Your task to perform on an android device: turn off airplane mode Image 0: 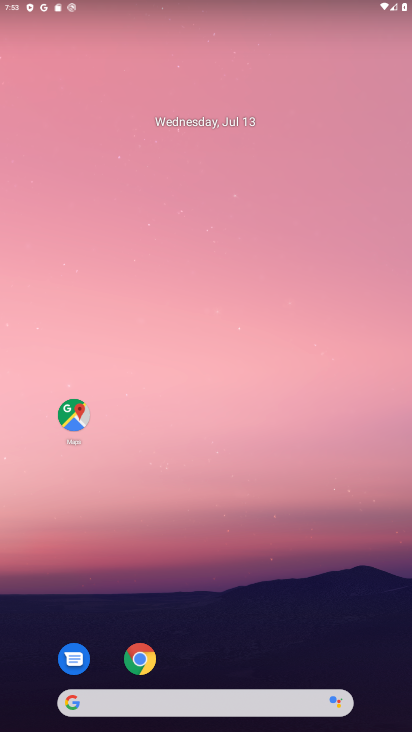
Step 0: drag from (279, 659) to (266, 72)
Your task to perform on an android device: turn off airplane mode Image 1: 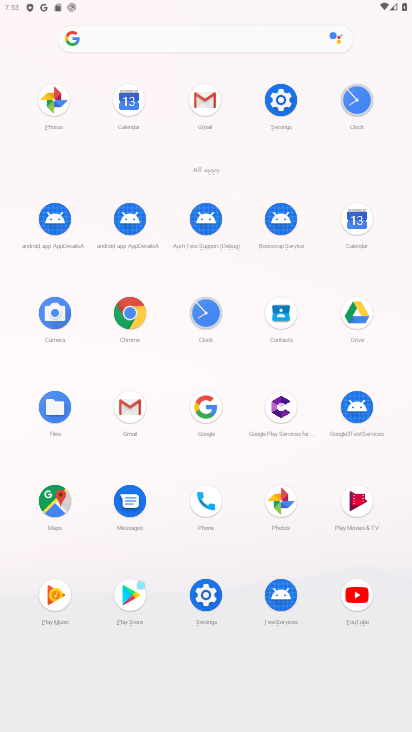
Step 1: click (281, 94)
Your task to perform on an android device: turn off airplane mode Image 2: 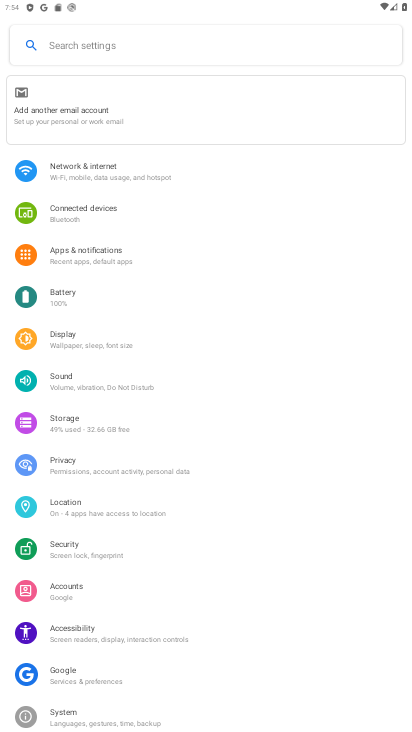
Step 2: click (198, 188)
Your task to perform on an android device: turn off airplane mode Image 3: 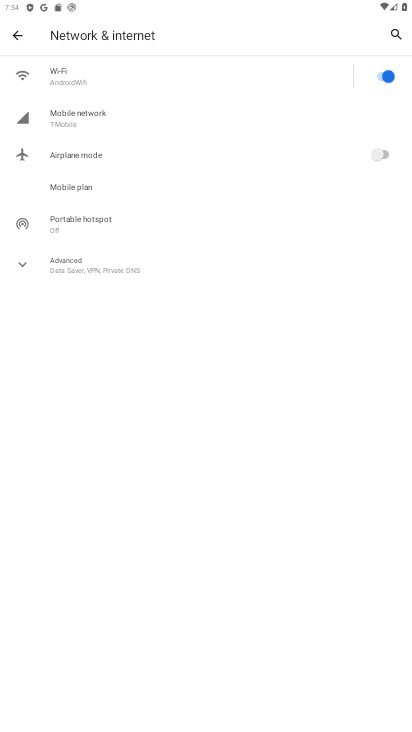
Step 3: task complete